Your task to perform on an android device: Show me recent news Image 0: 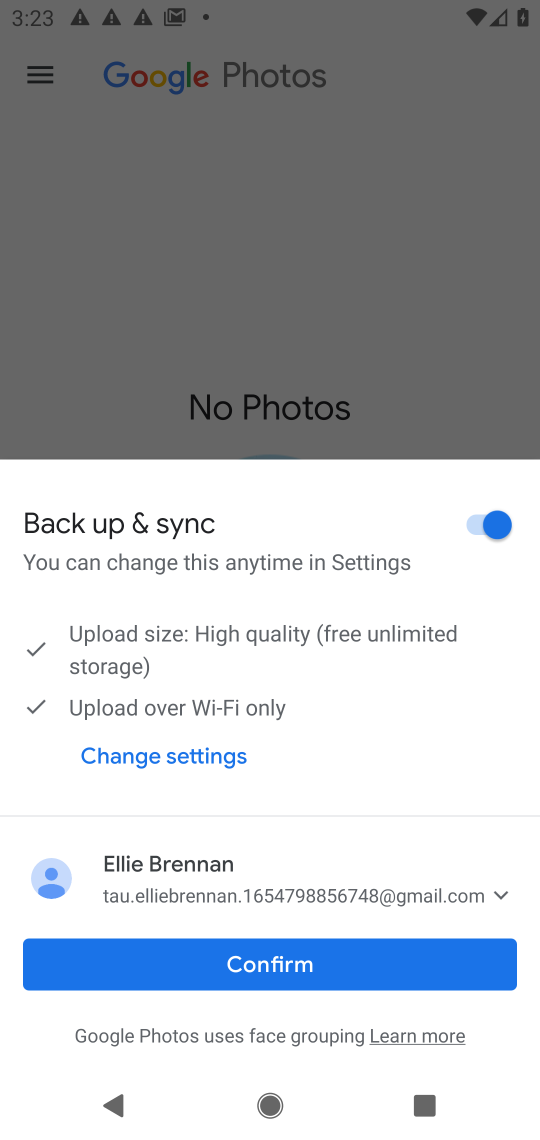
Step 0: press home button
Your task to perform on an android device: Show me recent news Image 1: 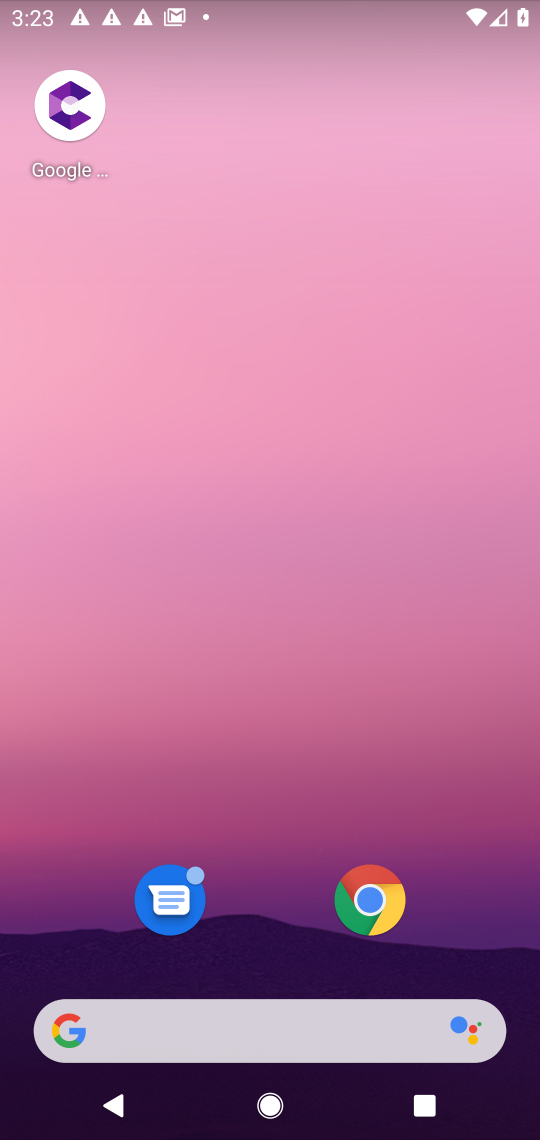
Step 1: drag from (12, 408) to (522, 390)
Your task to perform on an android device: Show me recent news Image 2: 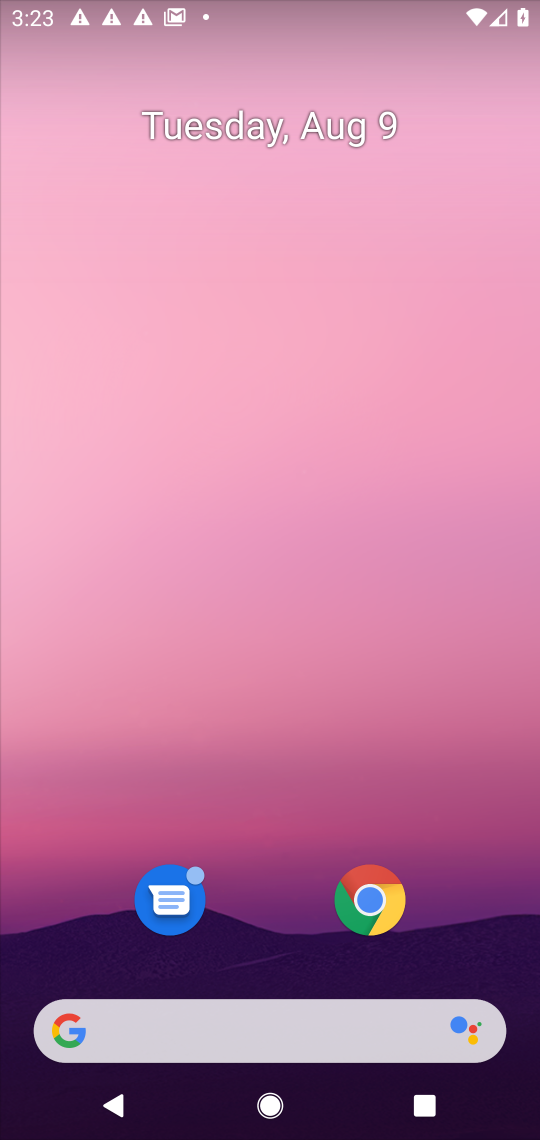
Step 2: click (17, 422)
Your task to perform on an android device: Show me recent news Image 3: 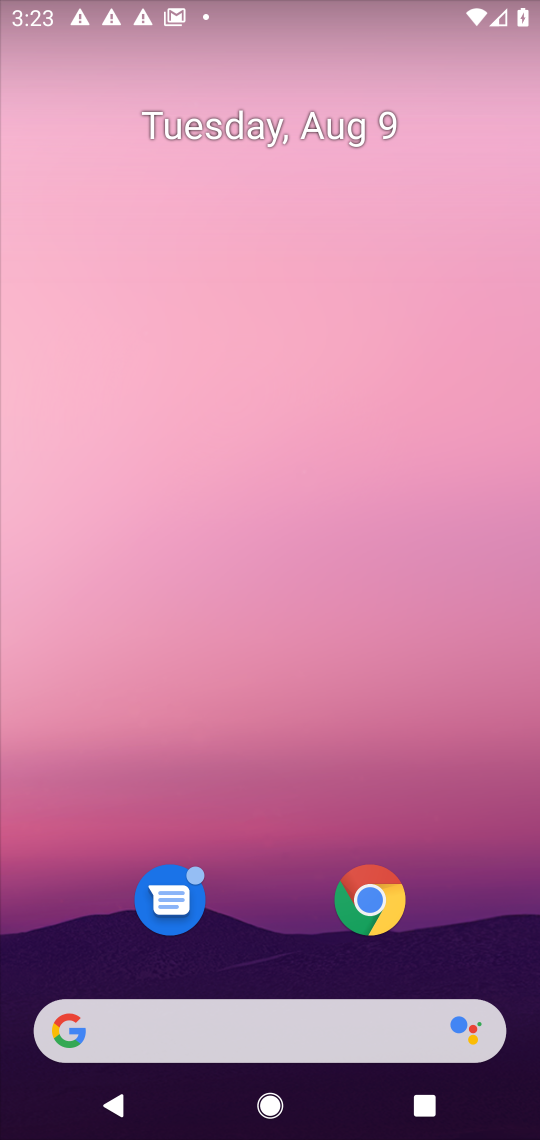
Step 3: task complete